Your task to perform on an android device: toggle wifi Image 0: 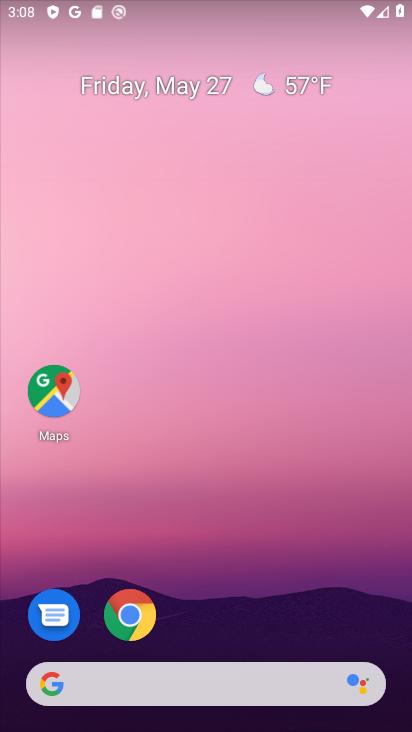
Step 0: drag from (204, 637) to (262, 133)
Your task to perform on an android device: toggle wifi Image 1: 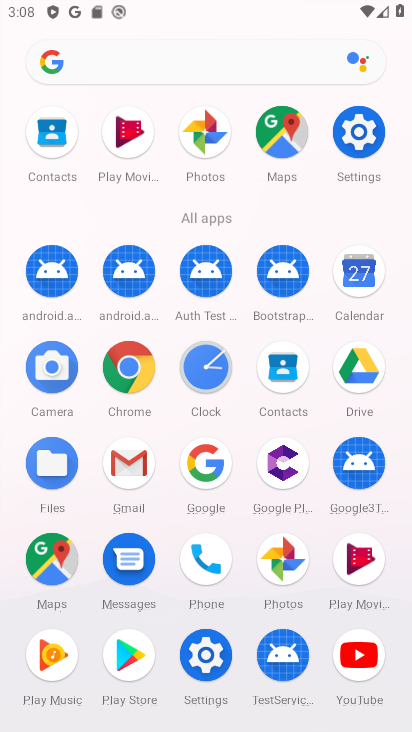
Step 1: click (354, 147)
Your task to perform on an android device: toggle wifi Image 2: 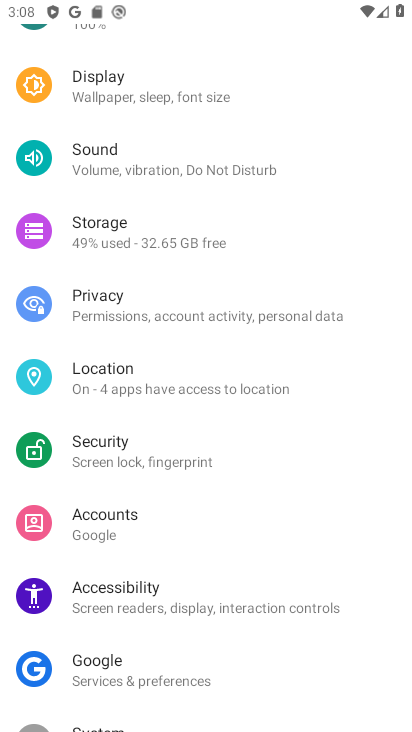
Step 2: drag from (153, 214) to (98, 719)
Your task to perform on an android device: toggle wifi Image 3: 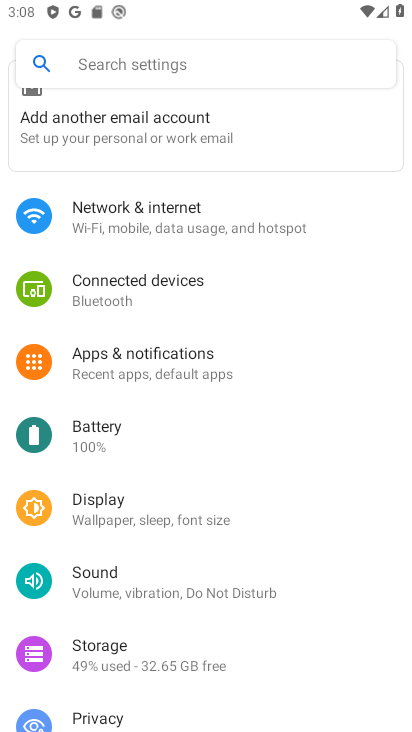
Step 3: click (151, 215)
Your task to perform on an android device: toggle wifi Image 4: 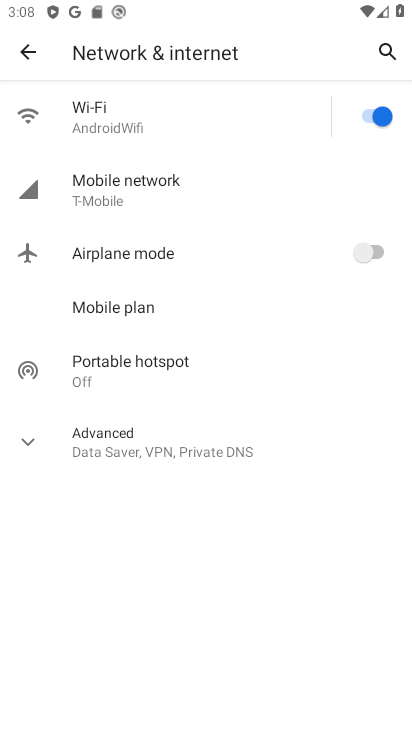
Step 4: click (368, 118)
Your task to perform on an android device: toggle wifi Image 5: 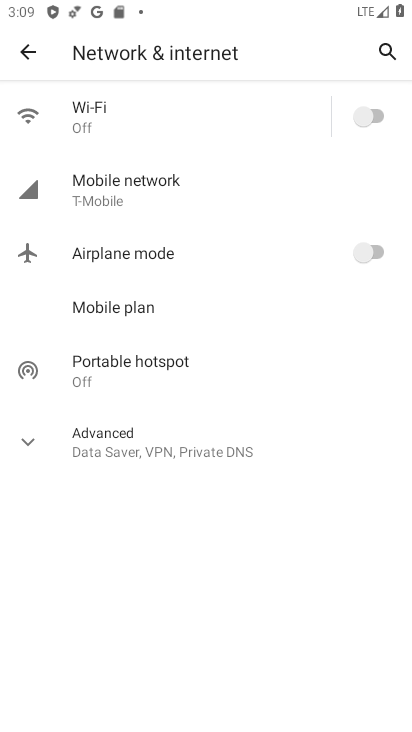
Step 5: task complete